Your task to perform on an android device: open a bookmark in the chrome app Image 0: 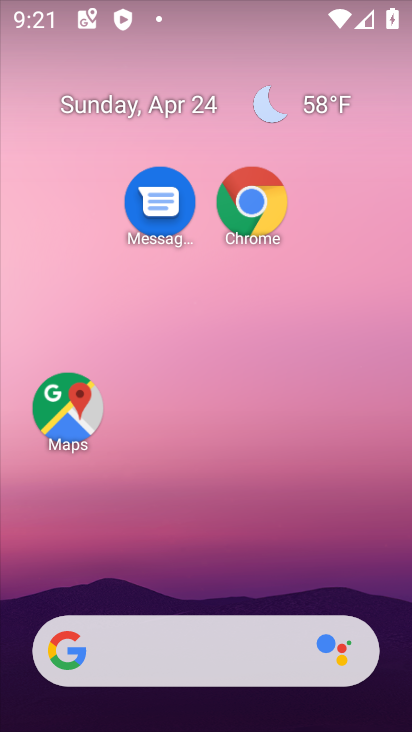
Step 0: click (202, 79)
Your task to perform on an android device: open a bookmark in the chrome app Image 1: 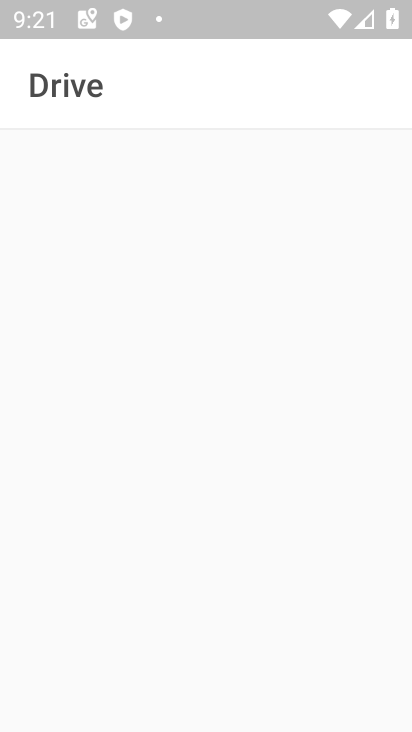
Step 1: press home button
Your task to perform on an android device: open a bookmark in the chrome app Image 2: 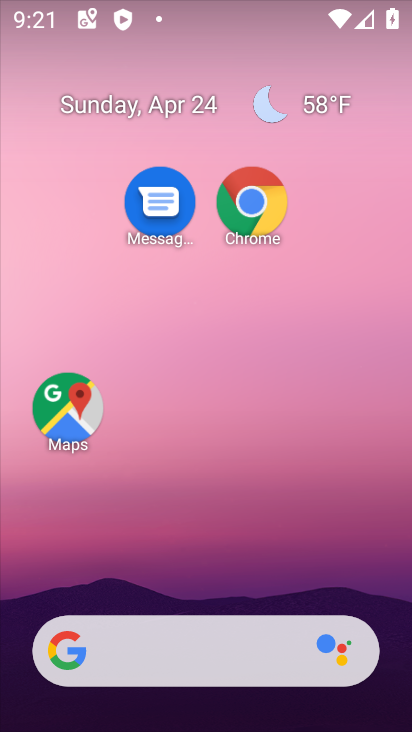
Step 2: click (251, 205)
Your task to perform on an android device: open a bookmark in the chrome app Image 3: 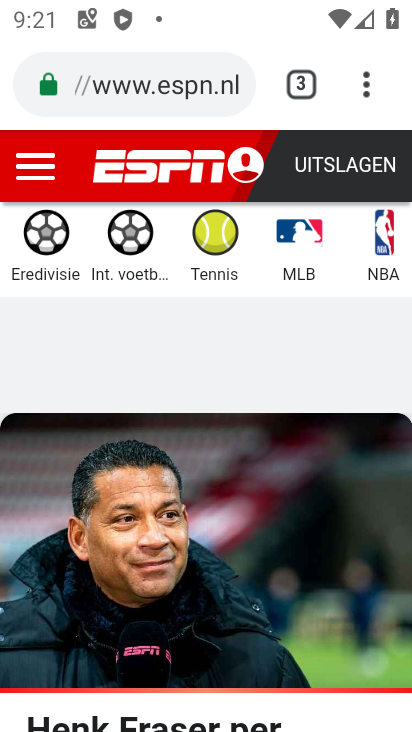
Step 3: drag from (363, 85) to (168, 396)
Your task to perform on an android device: open a bookmark in the chrome app Image 4: 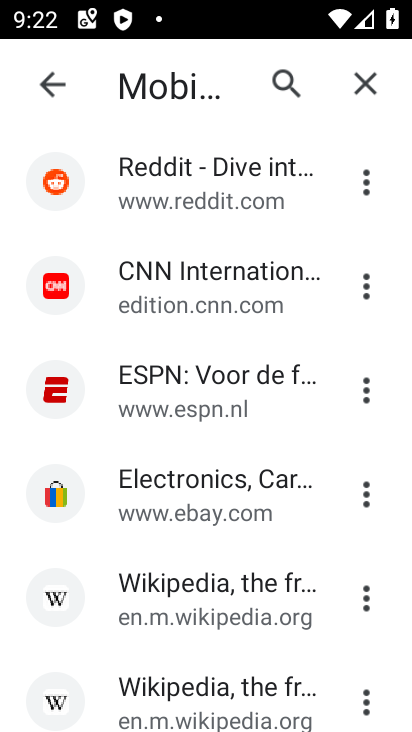
Step 4: click (177, 283)
Your task to perform on an android device: open a bookmark in the chrome app Image 5: 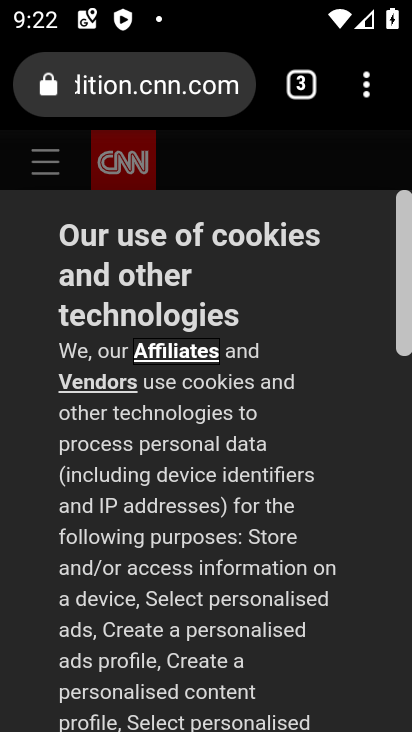
Step 5: task complete